Your task to perform on an android device: find snoozed emails in the gmail app Image 0: 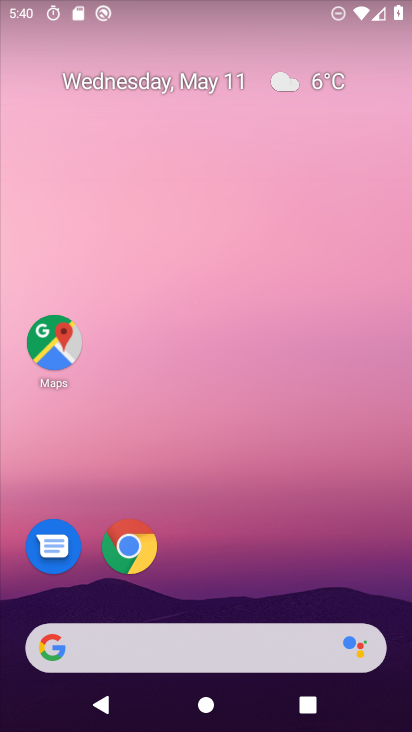
Step 0: drag from (211, 613) to (203, 213)
Your task to perform on an android device: find snoozed emails in the gmail app Image 1: 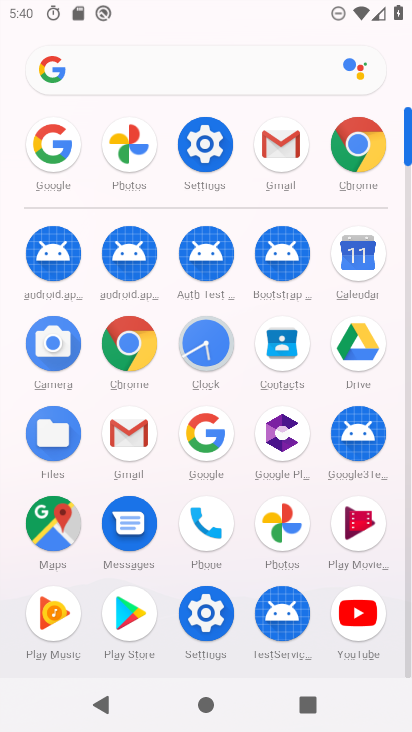
Step 1: click (268, 147)
Your task to perform on an android device: find snoozed emails in the gmail app Image 2: 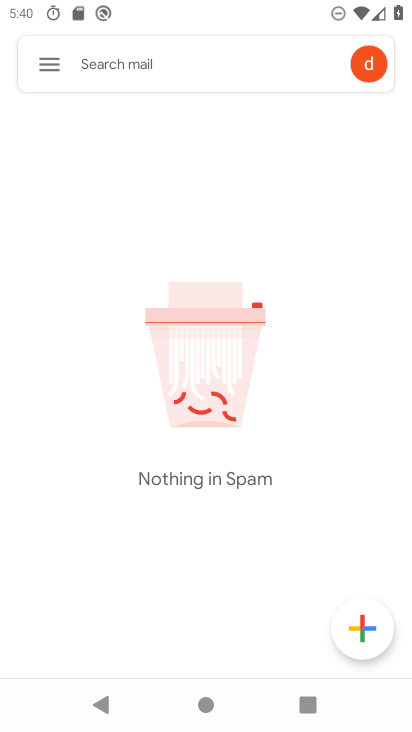
Step 2: click (44, 65)
Your task to perform on an android device: find snoozed emails in the gmail app Image 3: 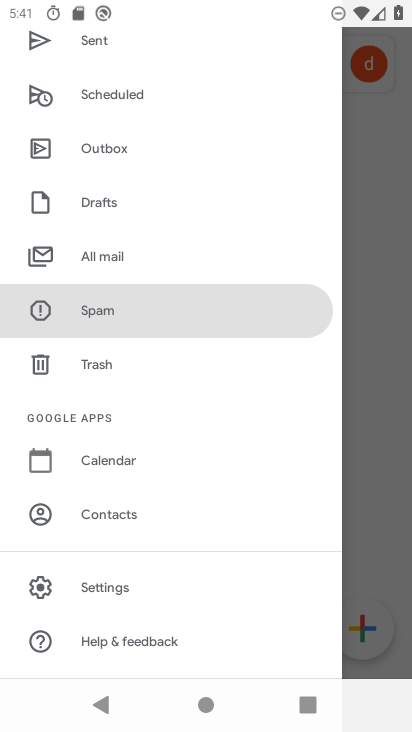
Step 3: drag from (207, 94) to (221, 510)
Your task to perform on an android device: find snoozed emails in the gmail app Image 4: 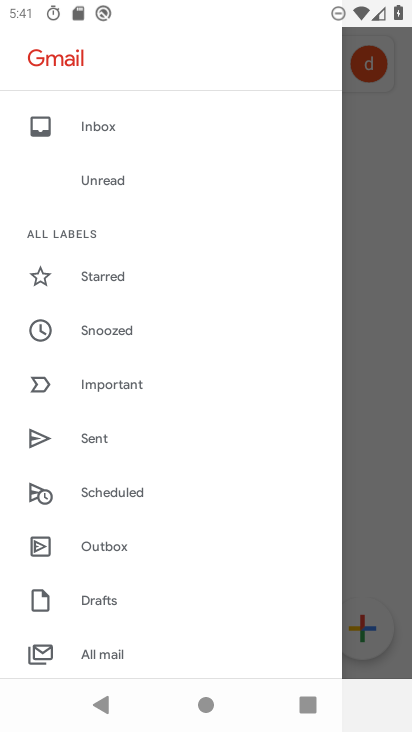
Step 4: click (95, 285)
Your task to perform on an android device: find snoozed emails in the gmail app Image 5: 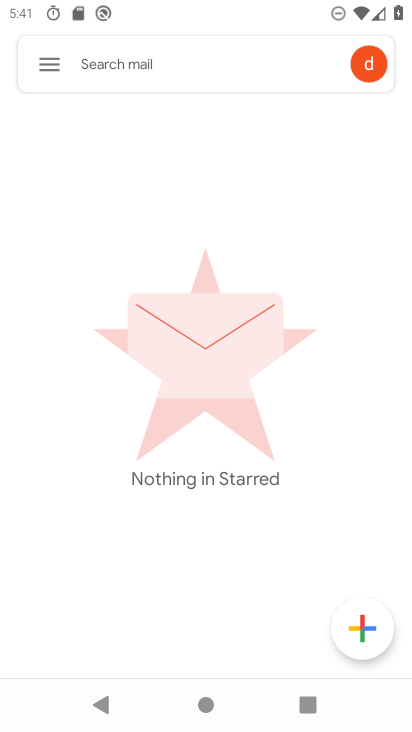
Step 5: click (40, 69)
Your task to perform on an android device: find snoozed emails in the gmail app Image 6: 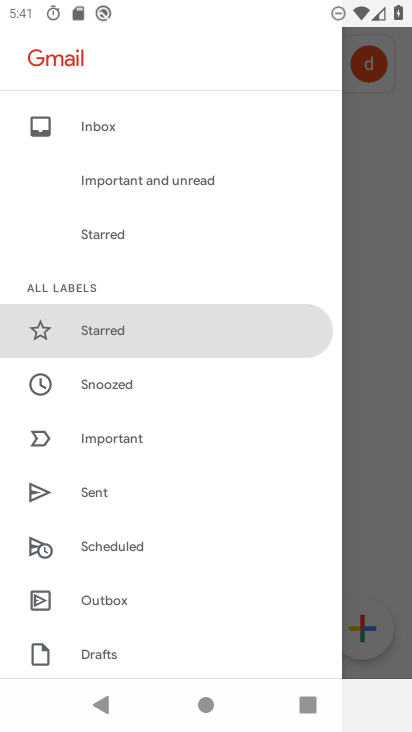
Step 6: click (119, 386)
Your task to perform on an android device: find snoozed emails in the gmail app Image 7: 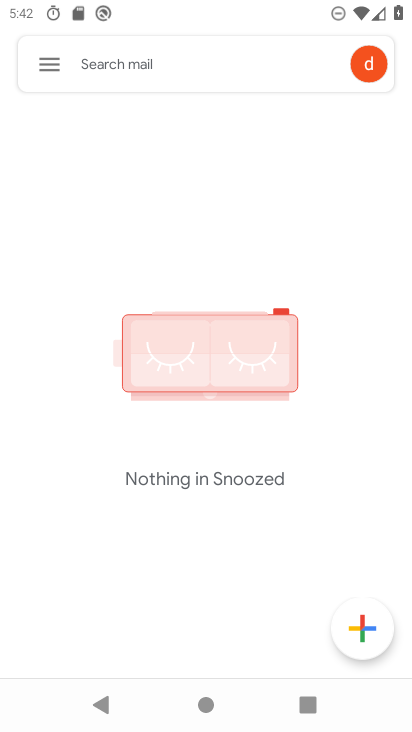
Step 7: task complete